Your task to perform on an android device: Go to battery settings Image 0: 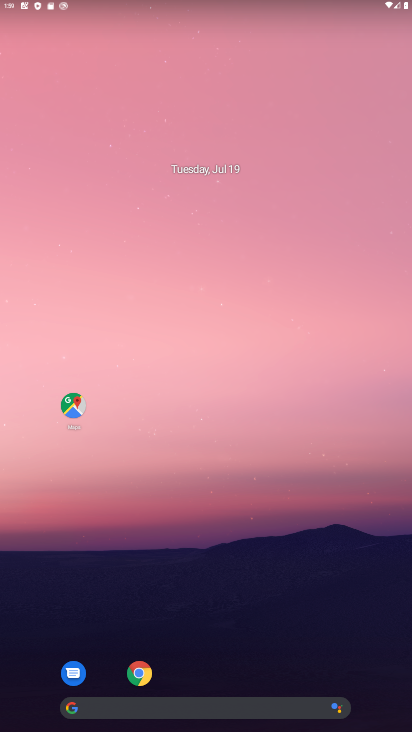
Step 0: drag from (188, 707) to (259, 187)
Your task to perform on an android device: Go to battery settings Image 1: 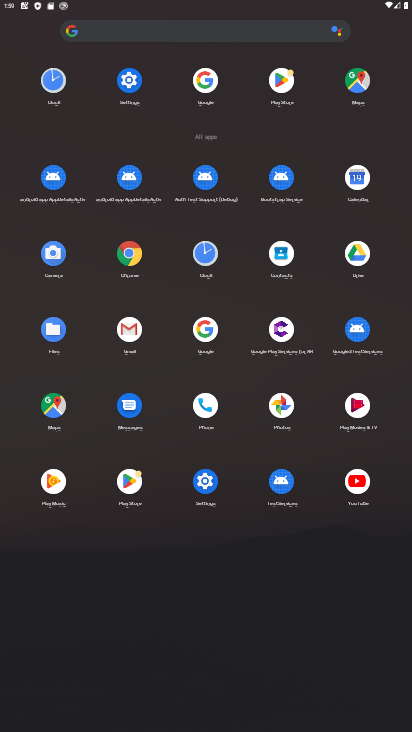
Step 1: click (129, 81)
Your task to perform on an android device: Go to battery settings Image 2: 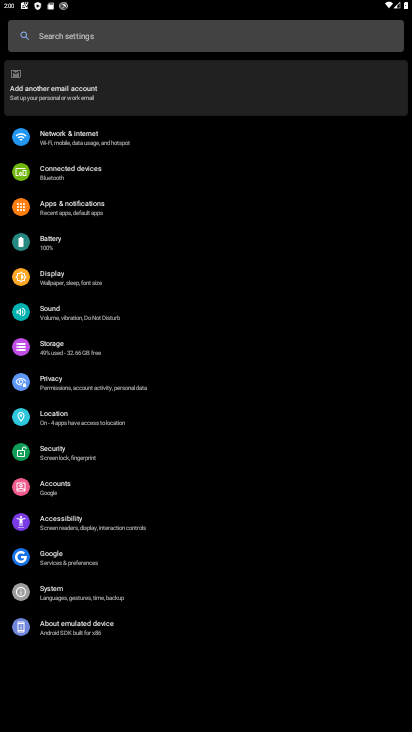
Step 2: click (58, 239)
Your task to perform on an android device: Go to battery settings Image 3: 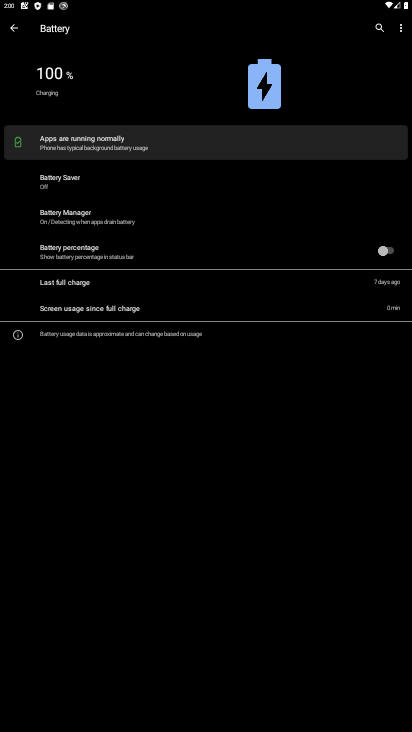
Step 3: task complete